Your task to perform on an android device: stop showing notifications on the lock screen Image 0: 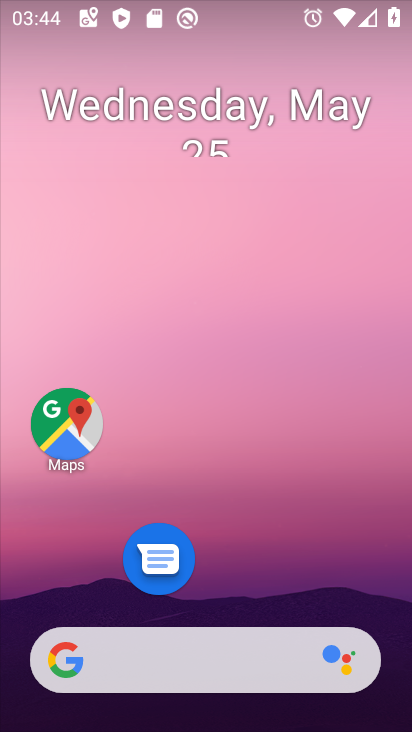
Step 0: drag from (221, 615) to (229, 158)
Your task to perform on an android device: stop showing notifications on the lock screen Image 1: 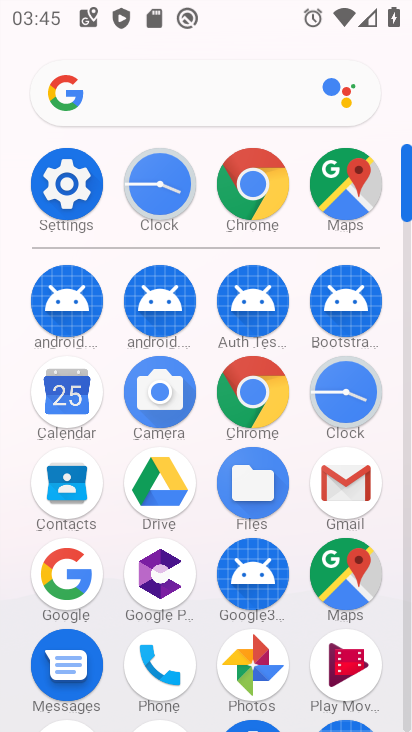
Step 1: click (70, 181)
Your task to perform on an android device: stop showing notifications on the lock screen Image 2: 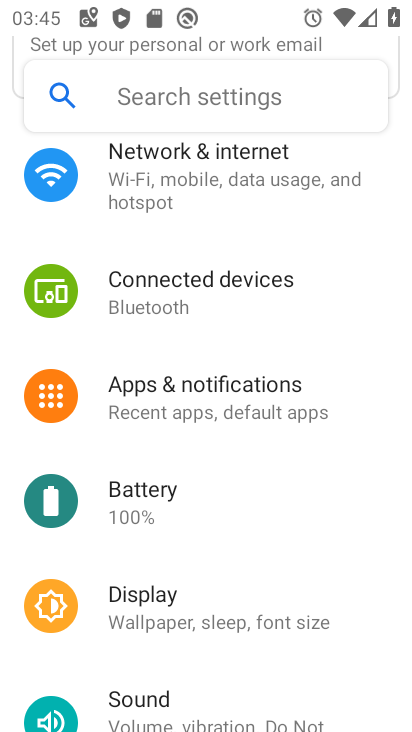
Step 2: click (237, 389)
Your task to perform on an android device: stop showing notifications on the lock screen Image 3: 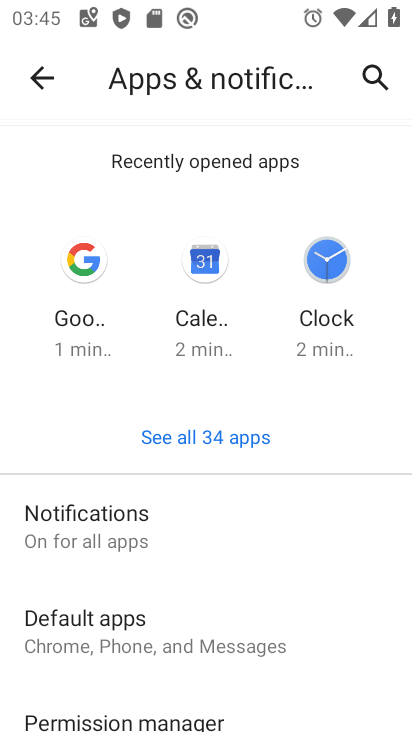
Step 3: click (169, 522)
Your task to perform on an android device: stop showing notifications on the lock screen Image 4: 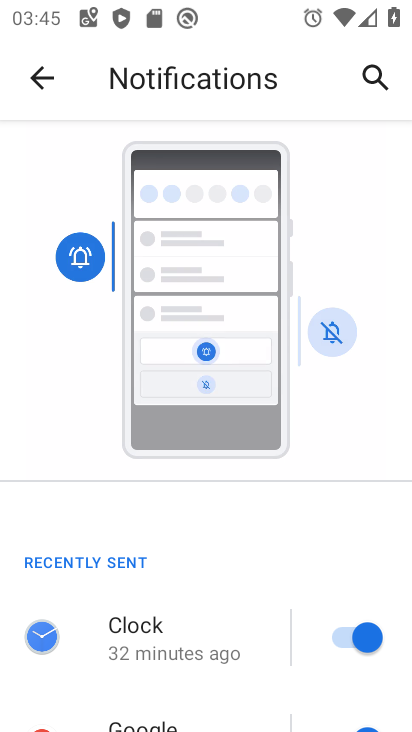
Step 4: drag from (195, 641) to (172, 125)
Your task to perform on an android device: stop showing notifications on the lock screen Image 5: 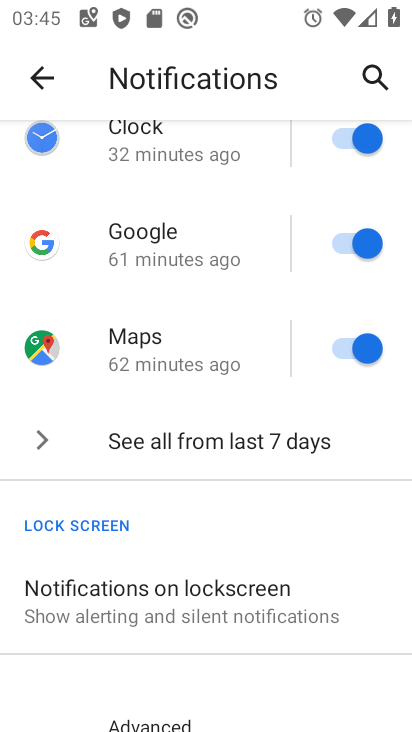
Step 5: click (196, 589)
Your task to perform on an android device: stop showing notifications on the lock screen Image 6: 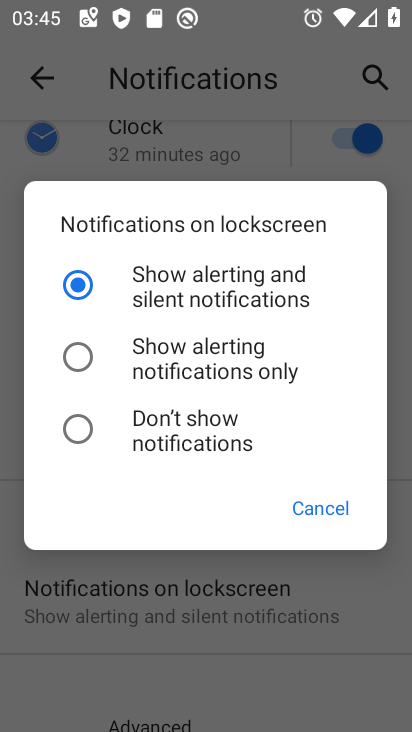
Step 6: click (69, 420)
Your task to perform on an android device: stop showing notifications on the lock screen Image 7: 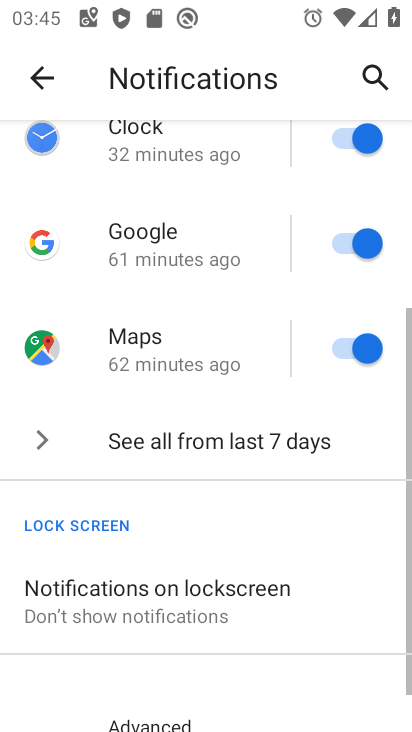
Step 7: task complete